Your task to perform on an android device: Is it going to rain tomorrow? Image 0: 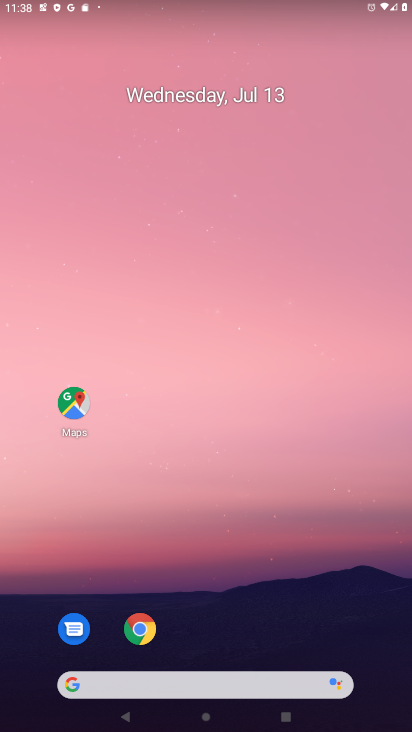
Step 0: drag from (305, 598) to (301, 210)
Your task to perform on an android device: Is it going to rain tomorrow? Image 1: 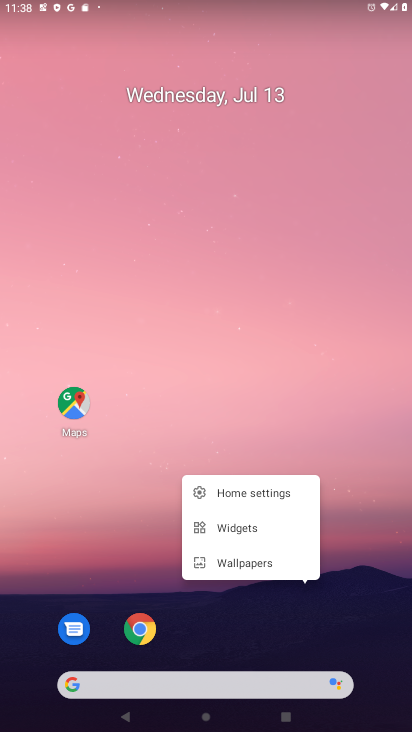
Step 1: click (301, 210)
Your task to perform on an android device: Is it going to rain tomorrow? Image 2: 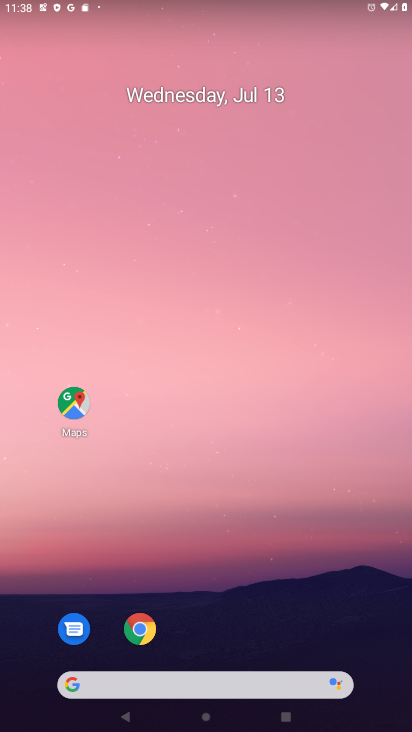
Step 2: drag from (237, 616) to (194, 105)
Your task to perform on an android device: Is it going to rain tomorrow? Image 3: 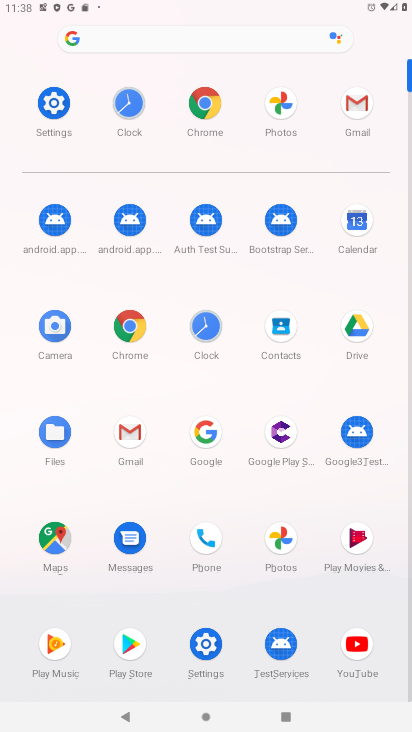
Step 3: click (168, 47)
Your task to perform on an android device: Is it going to rain tomorrow? Image 4: 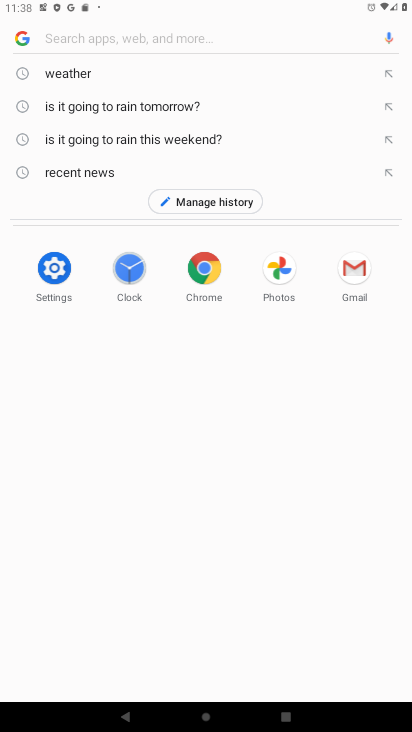
Step 4: click (153, 79)
Your task to perform on an android device: Is it going to rain tomorrow? Image 5: 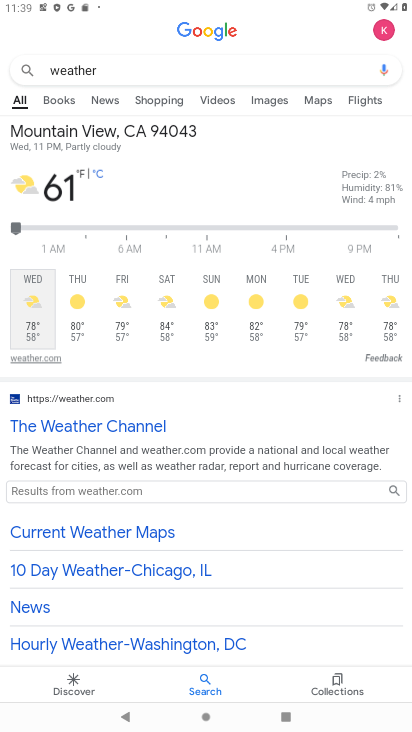
Step 5: task complete